Your task to perform on an android device: open wifi settings Image 0: 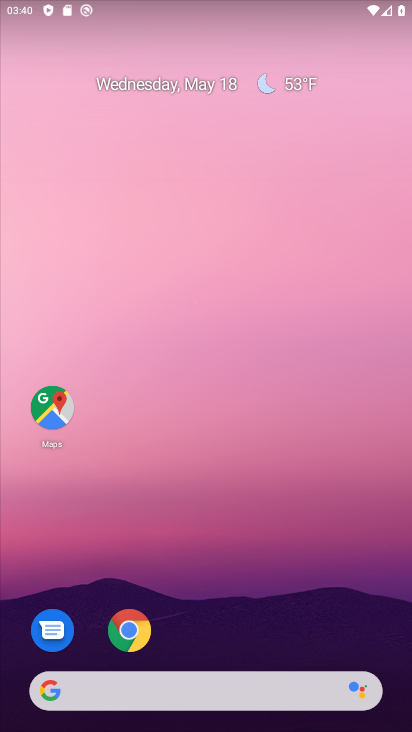
Step 0: drag from (208, 693) to (206, 173)
Your task to perform on an android device: open wifi settings Image 1: 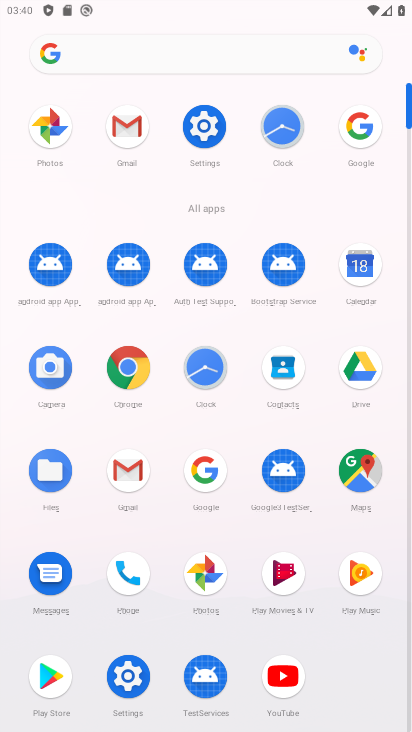
Step 1: click (207, 122)
Your task to perform on an android device: open wifi settings Image 2: 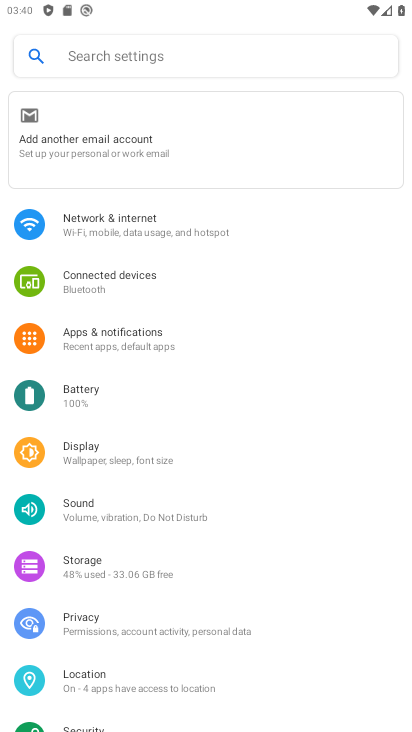
Step 2: click (120, 219)
Your task to perform on an android device: open wifi settings Image 3: 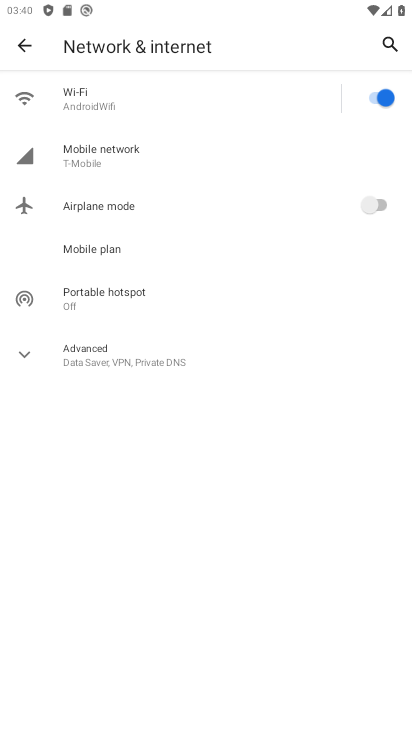
Step 3: click (88, 92)
Your task to perform on an android device: open wifi settings Image 4: 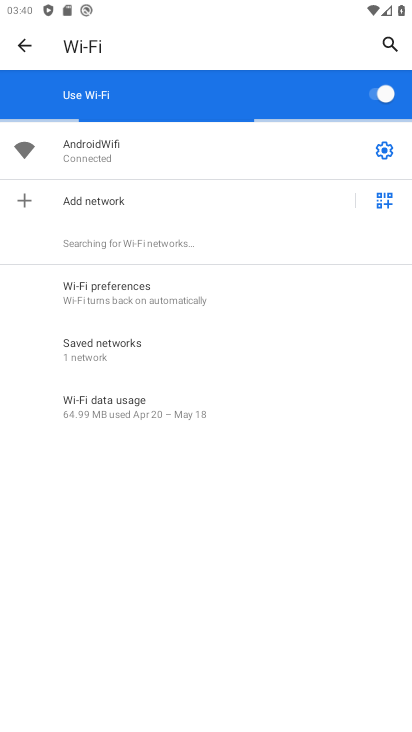
Step 4: task complete